Your task to perform on an android device: turn off translation in the chrome app Image 0: 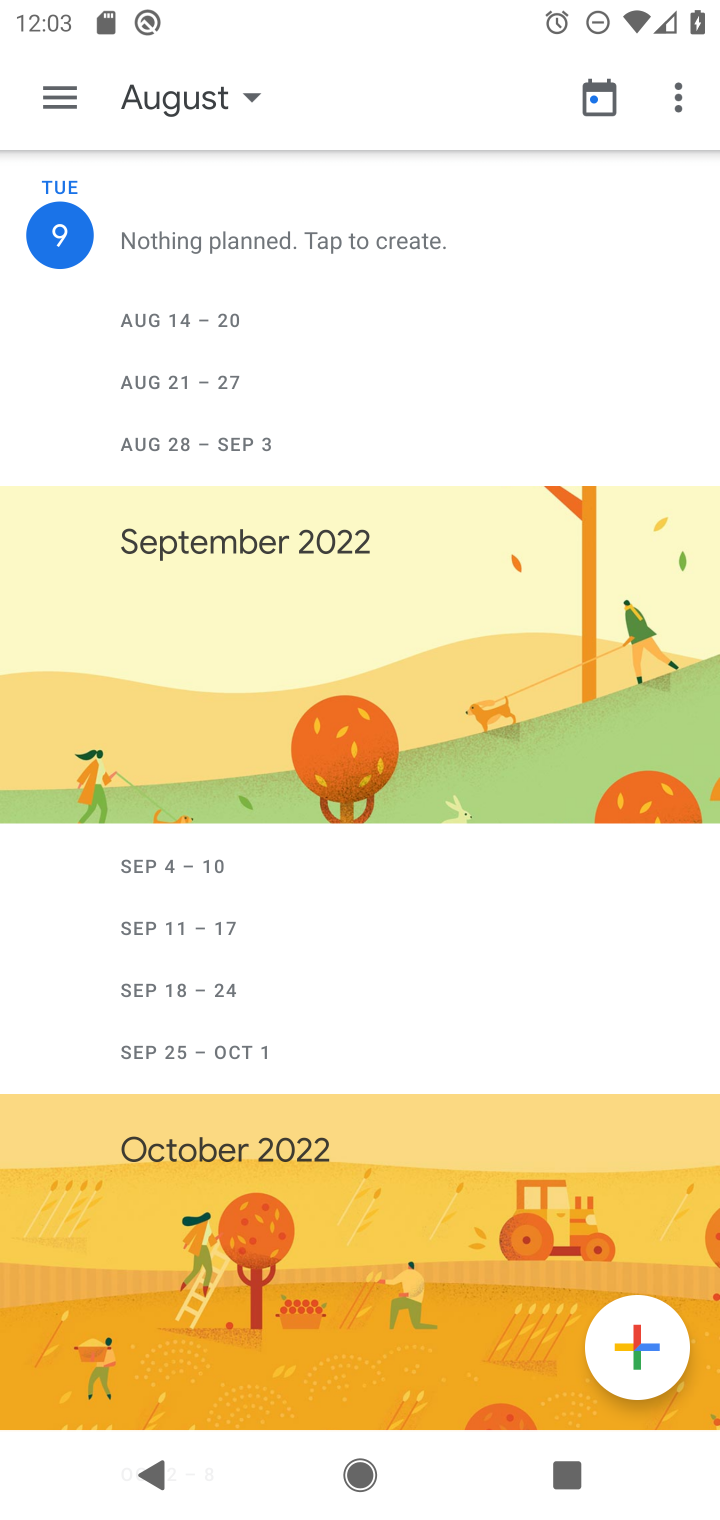
Step 0: press home button
Your task to perform on an android device: turn off translation in the chrome app Image 1: 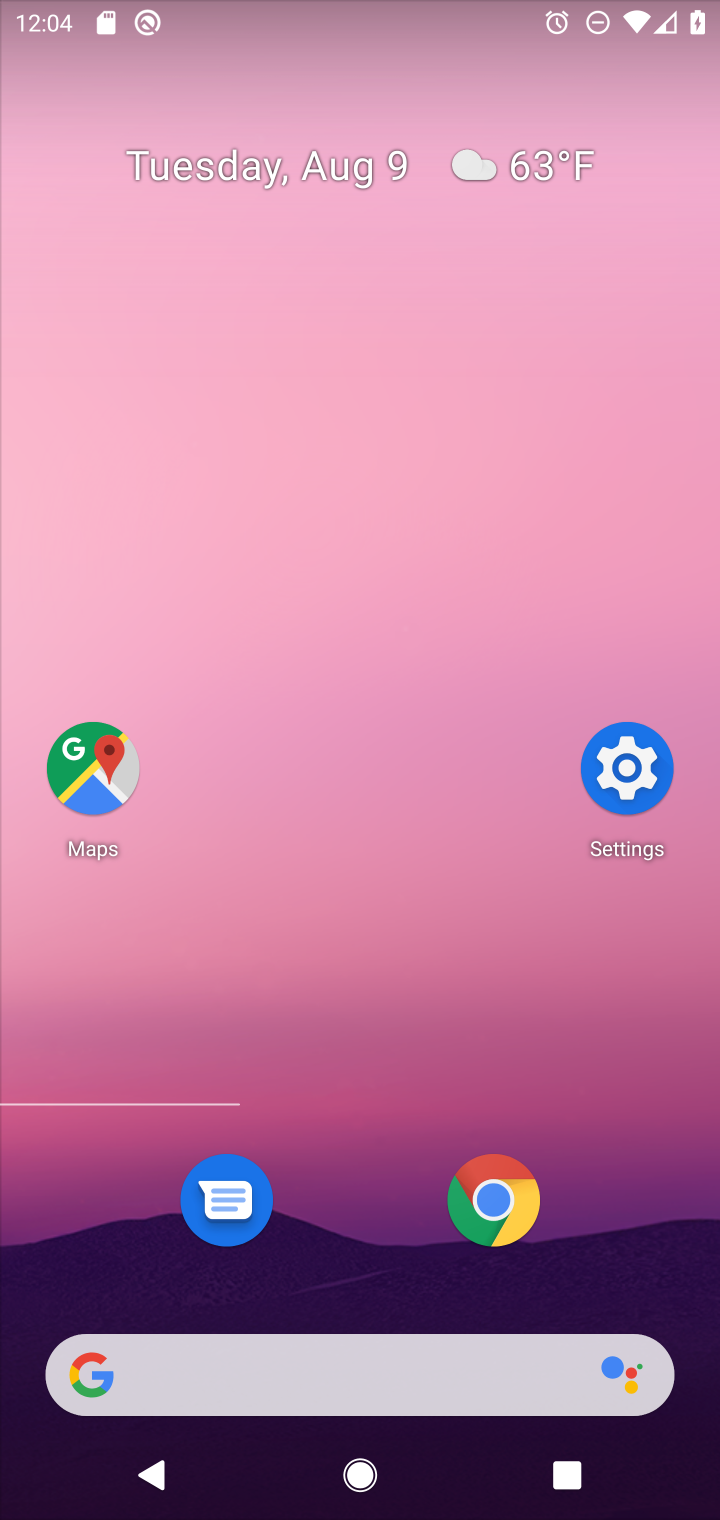
Step 1: click (501, 1198)
Your task to perform on an android device: turn off translation in the chrome app Image 2: 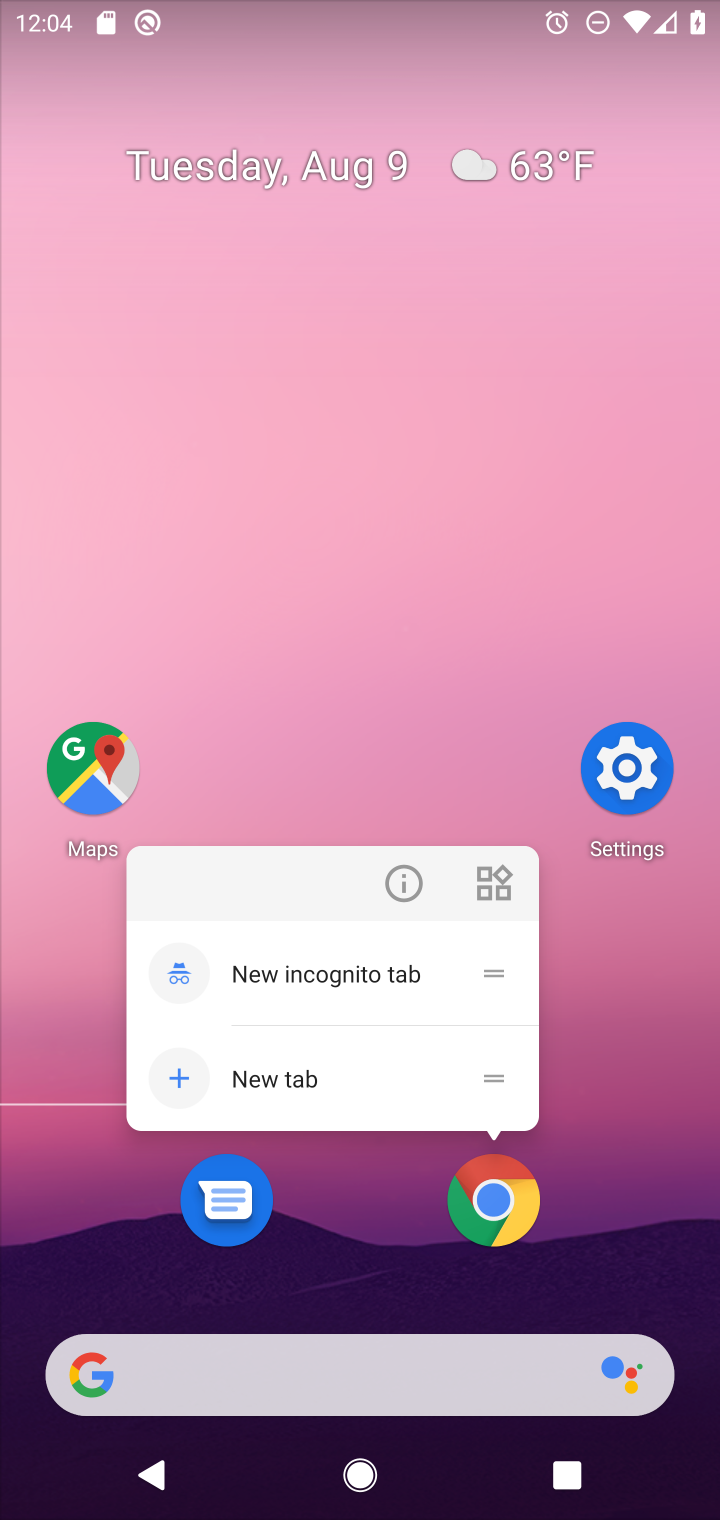
Step 2: click (501, 1198)
Your task to perform on an android device: turn off translation in the chrome app Image 3: 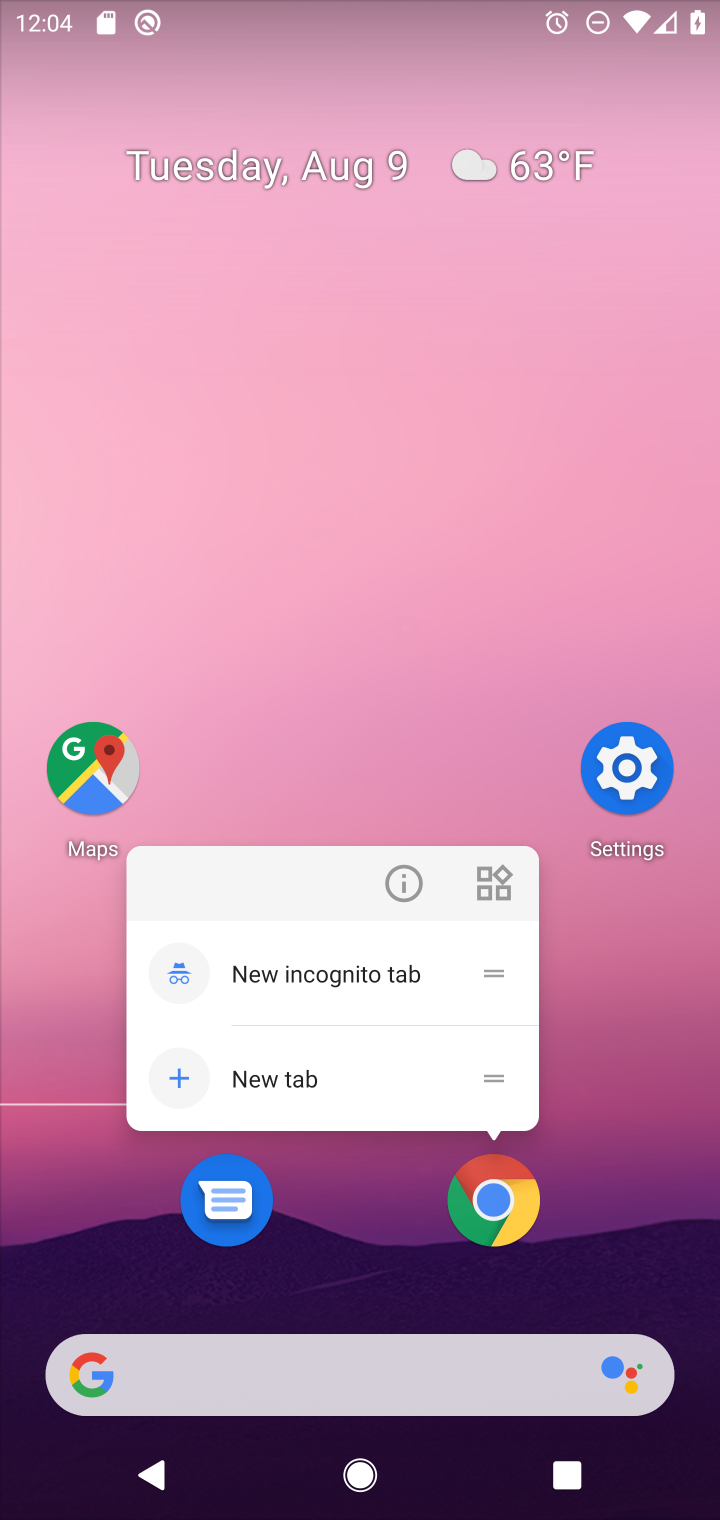
Step 3: click (501, 1198)
Your task to perform on an android device: turn off translation in the chrome app Image 4: 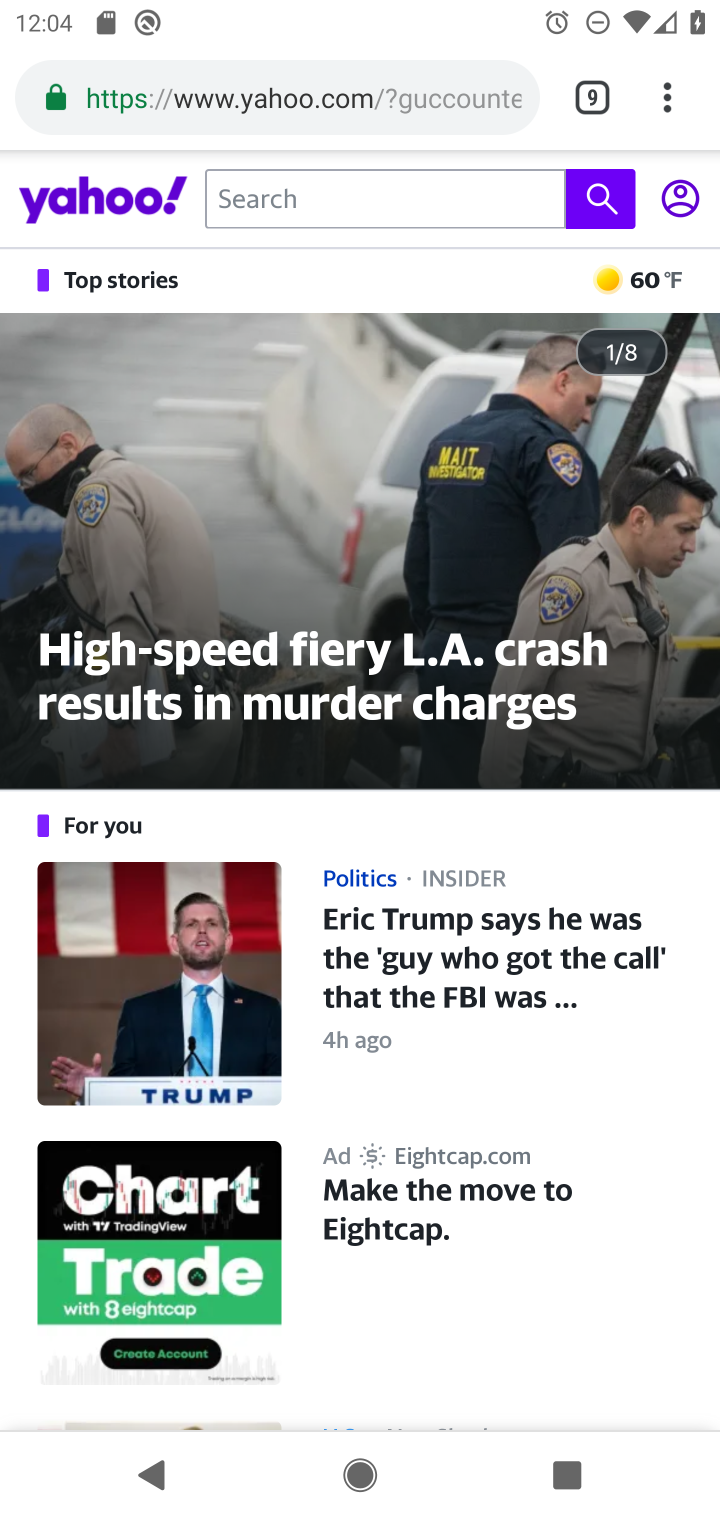
Step 4: drag from (657, 82) to (460, 1287)
Your task to perform on an android device: turn off translation in the chrome app Image 5: 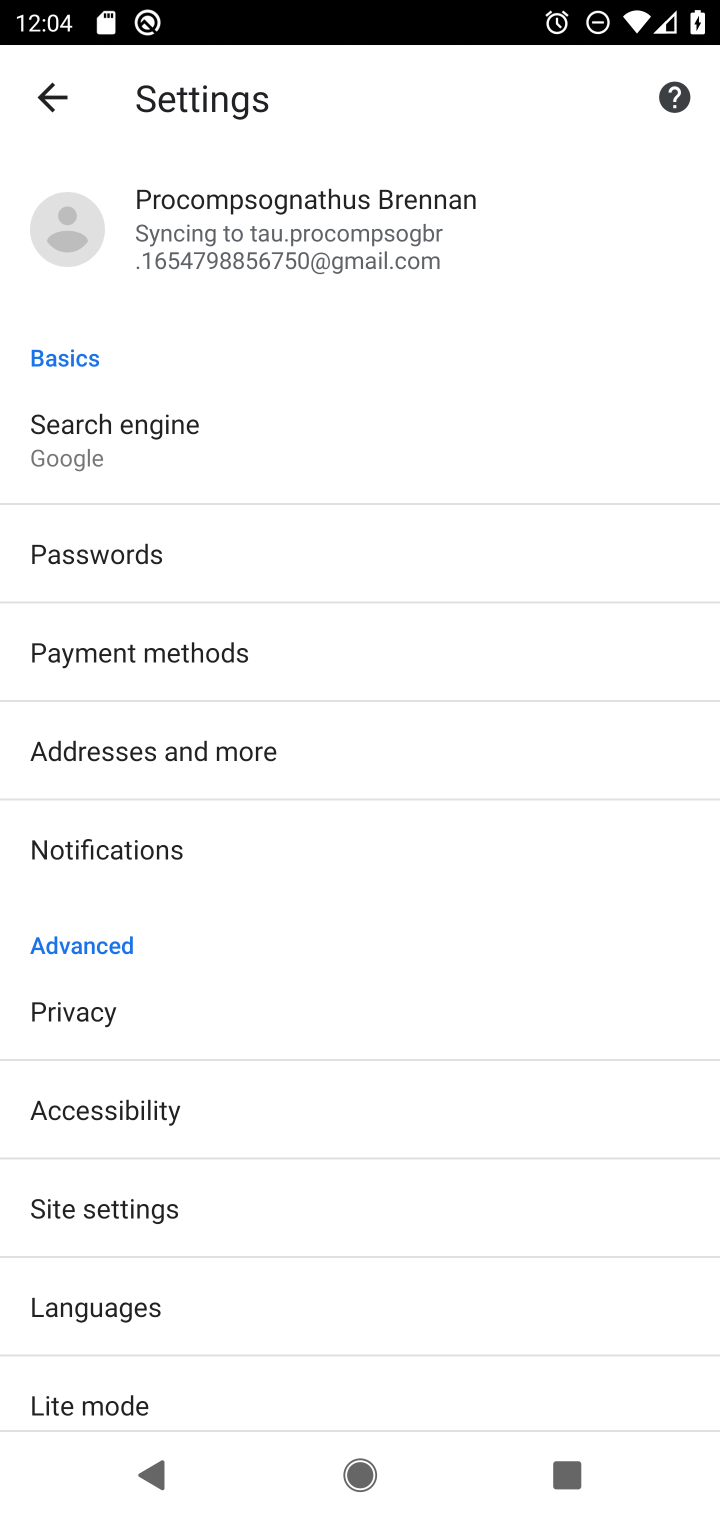
Step 5: drag from (363, 1292) to (412, 477)
Your task to perform on an android device: turn off translation in the chrome app Image 6: 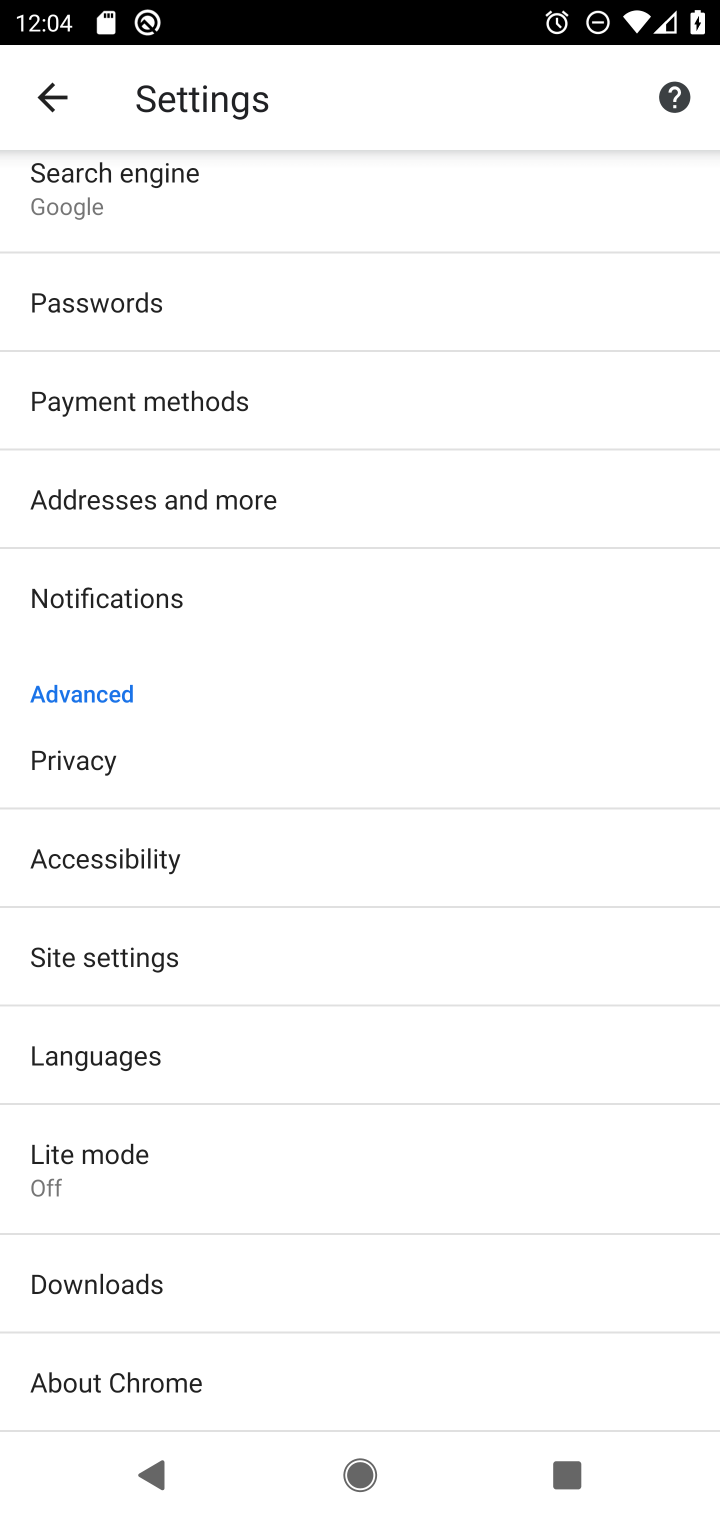
Step 6: click (225, 1070)
Your task to perform on an android device: turn off translation in the chrome app Image 7: 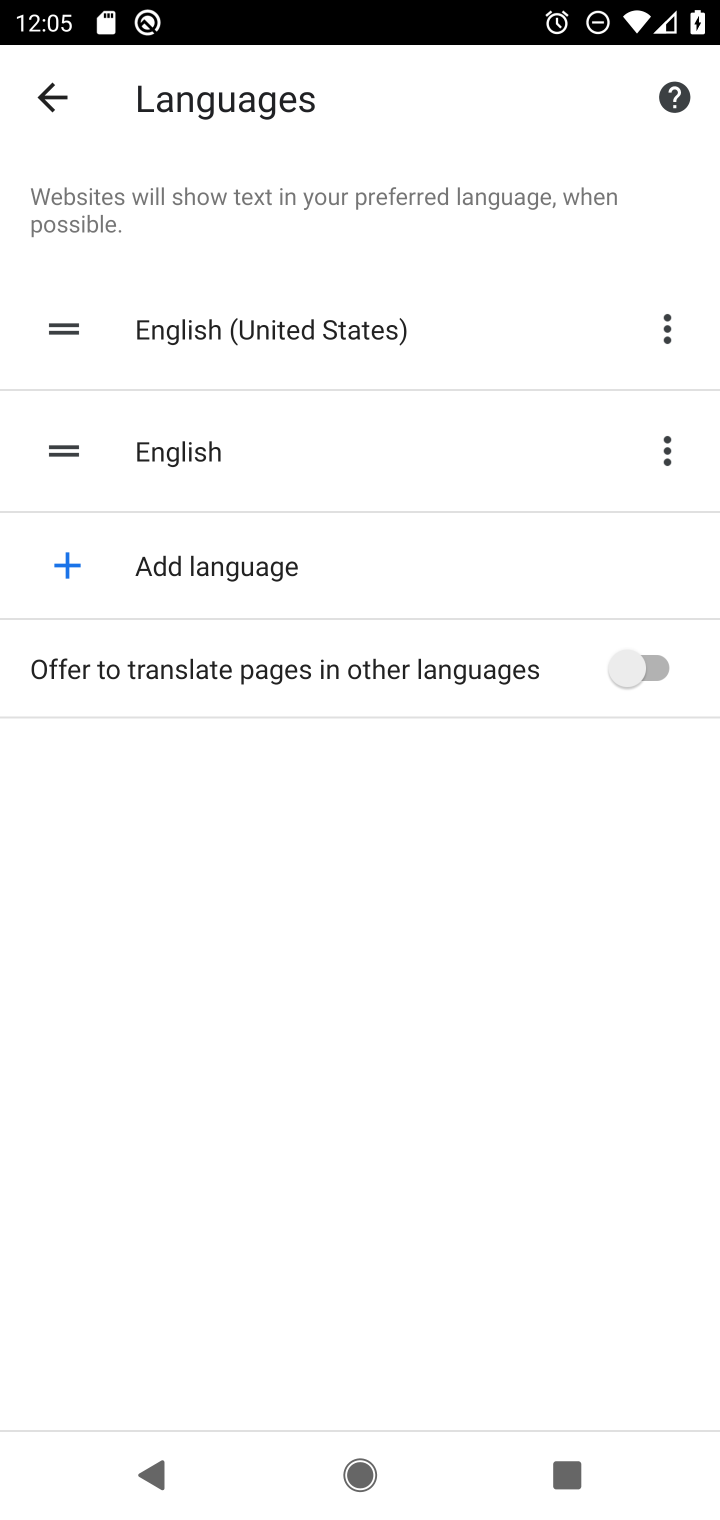
Step 7: task complete